Your task to perform on an android device: open app "Google Play services" (install if not already installed) Image 0: 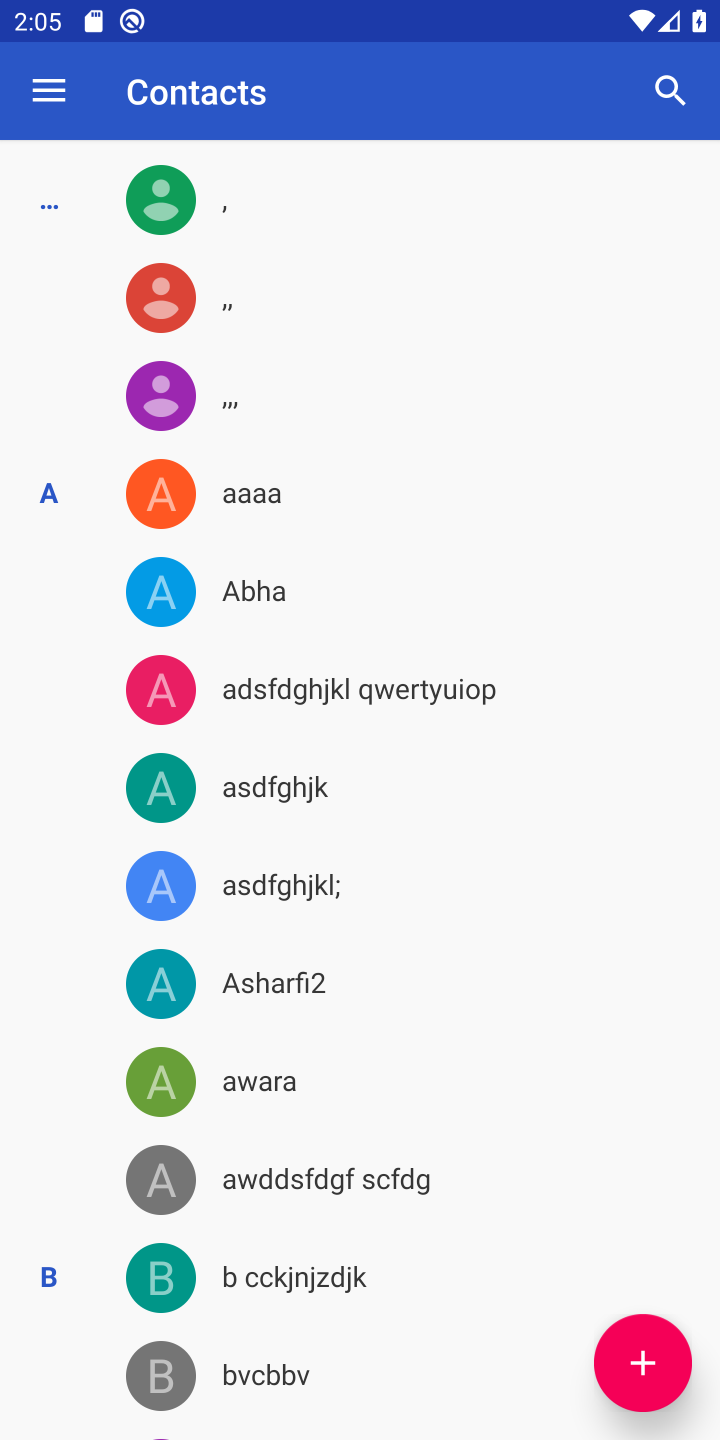
Step 0: press home button
Your task to perform on an android device: open app "Google Play services" (install if not already installed) Image 1: 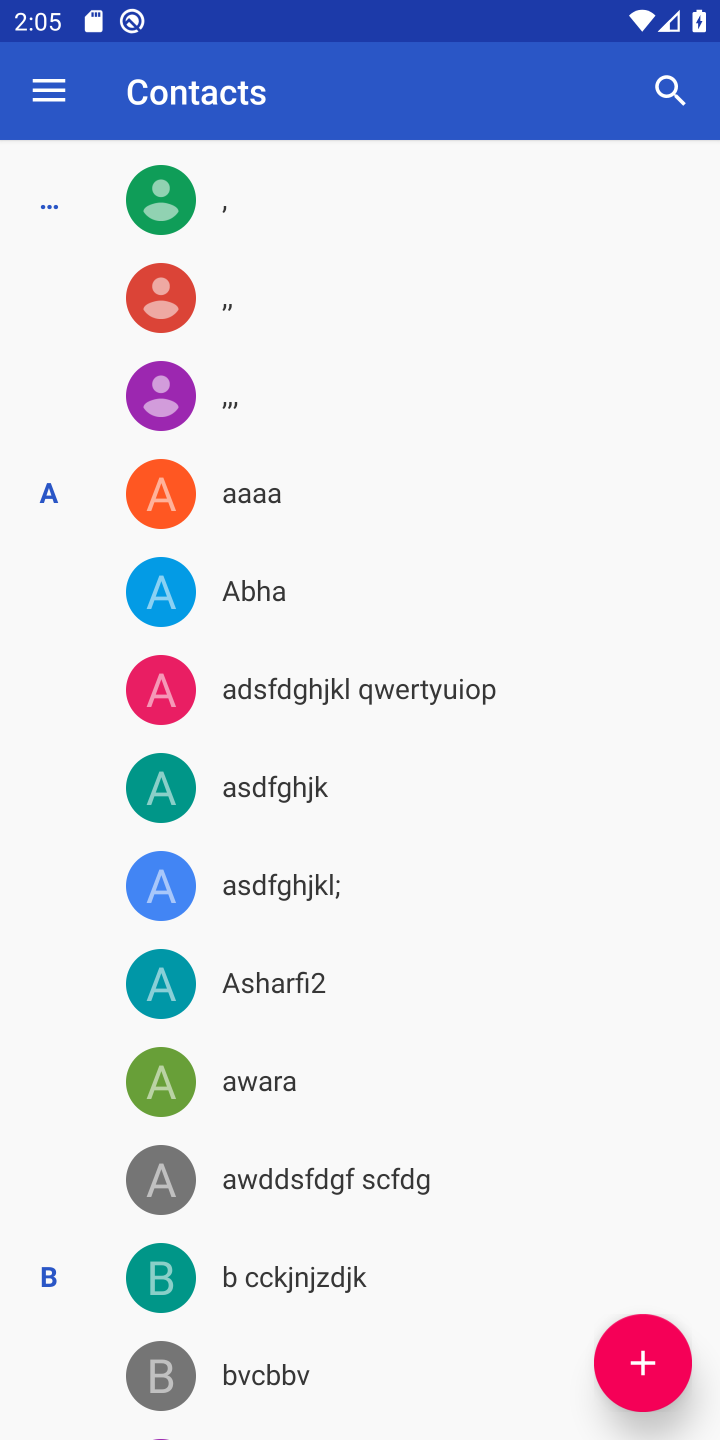
Step 1: press home button
Your task to perform on an android device: open app "Google Play services" (install if not already installed) Image 2: 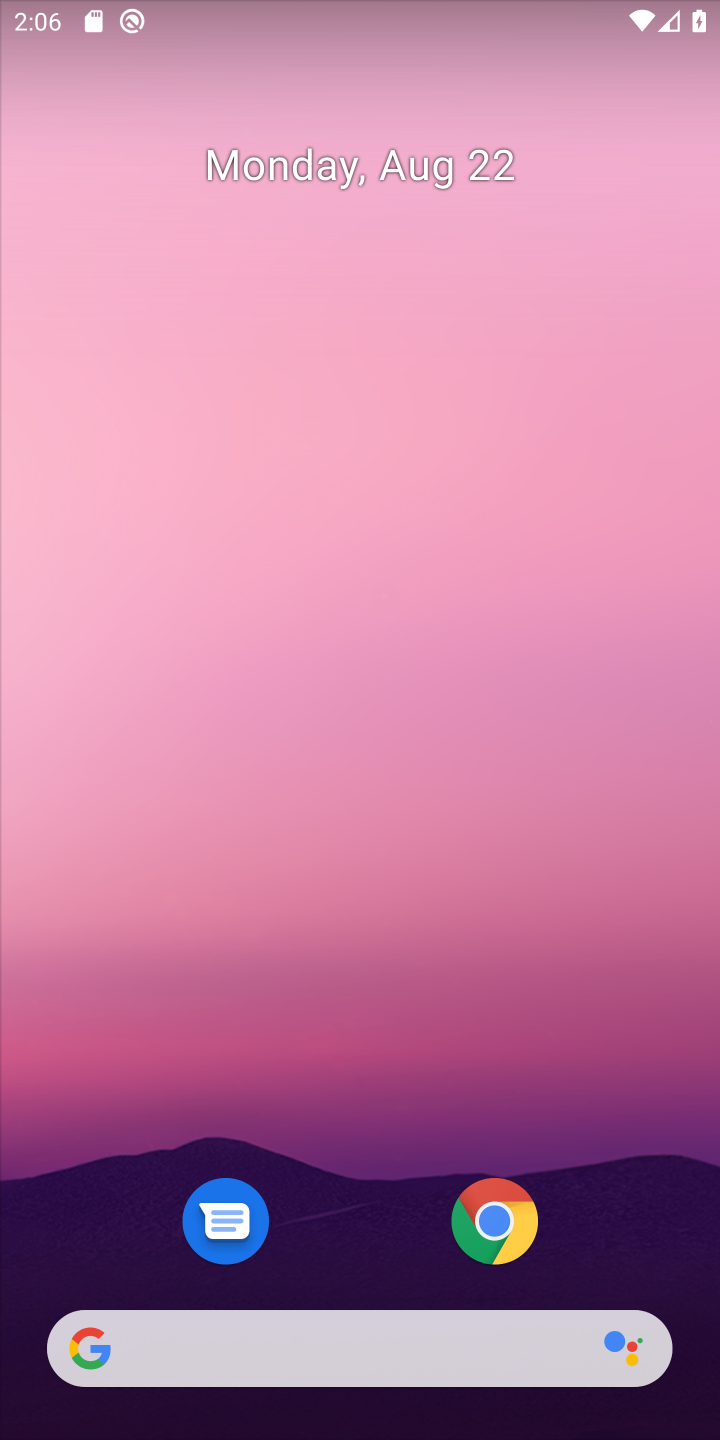
Step 2: drag from (363, 1269) to (353, 134)
Your task to perform on an android device: open app "Google Play services" (install if not already installed) Image 3: 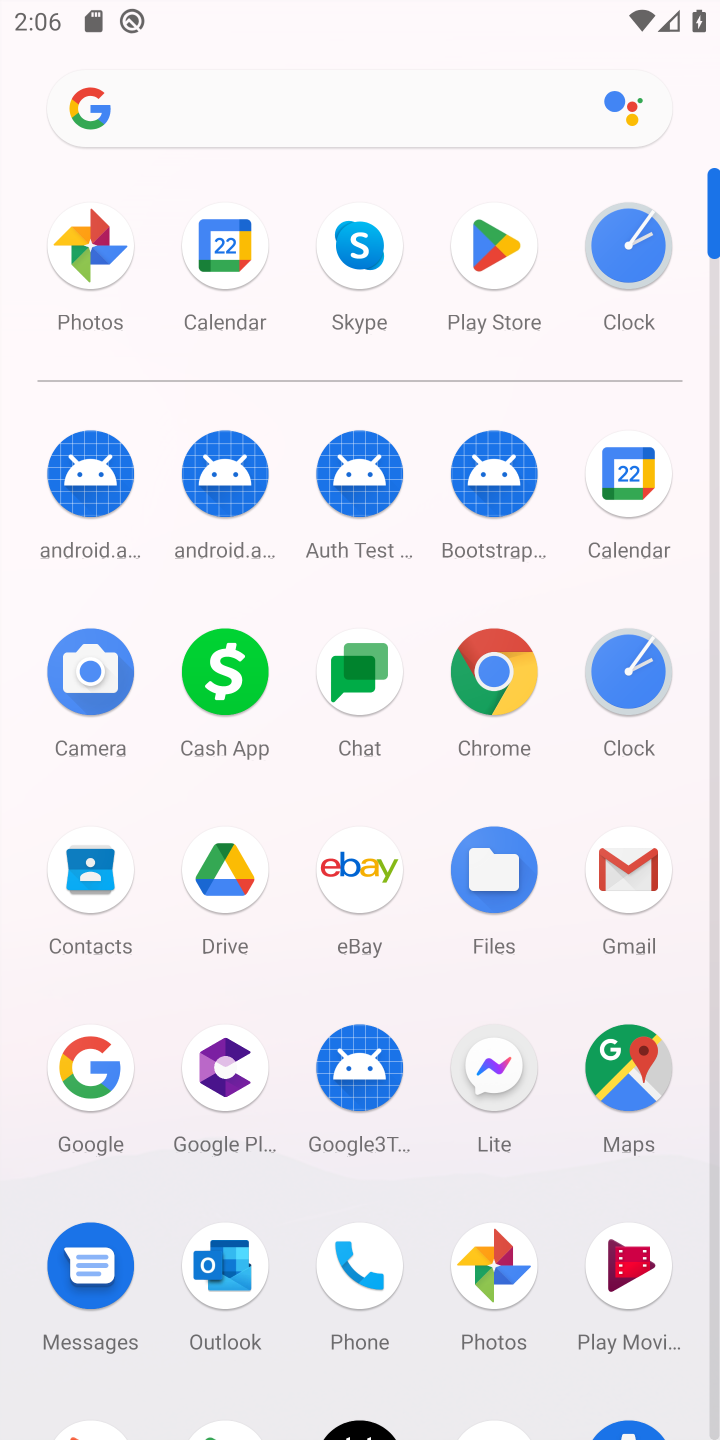
Step 3: click (493, 239)
Your task to perform on an android device: open app "Google Play services" (install if not already installed) Image 4: 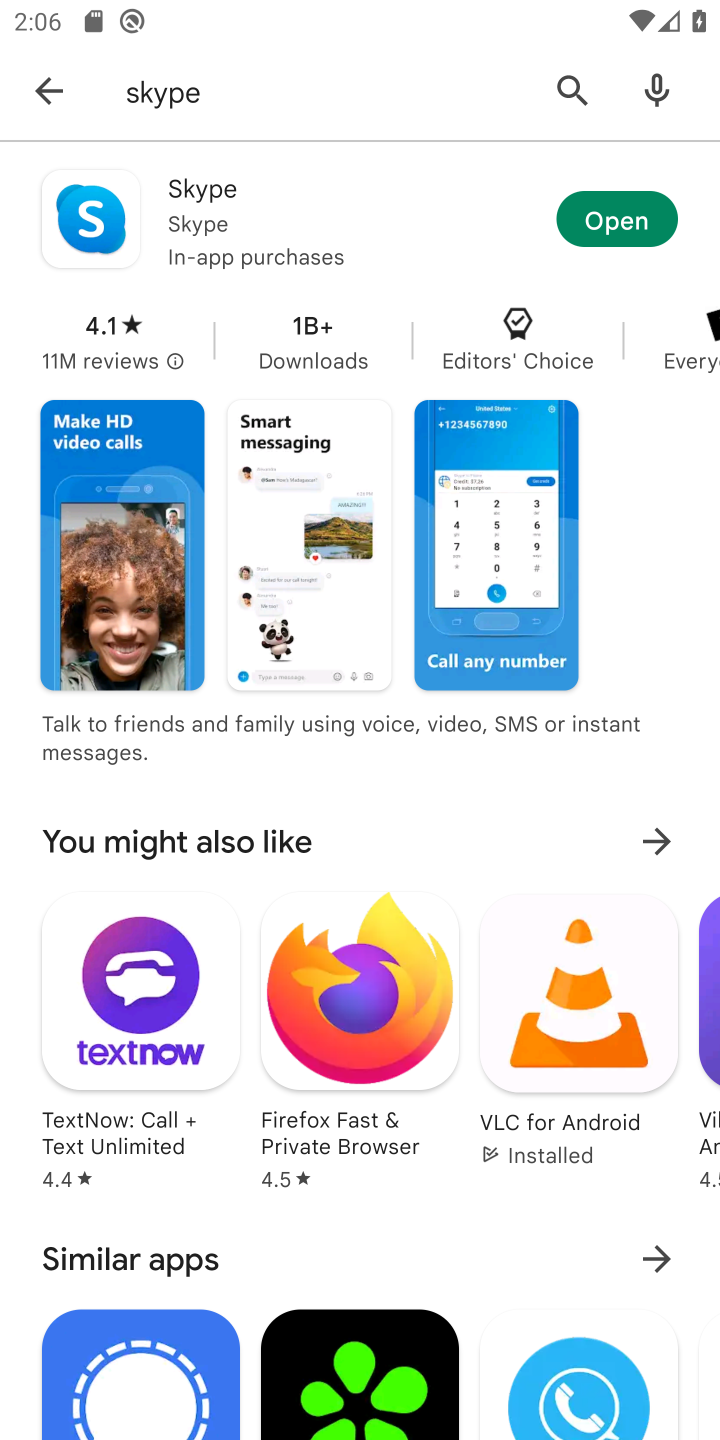
Step 4: click (564, 82)
Your task to perform on an android device: open app "Google Play services" (install if not already installed) Image 5: 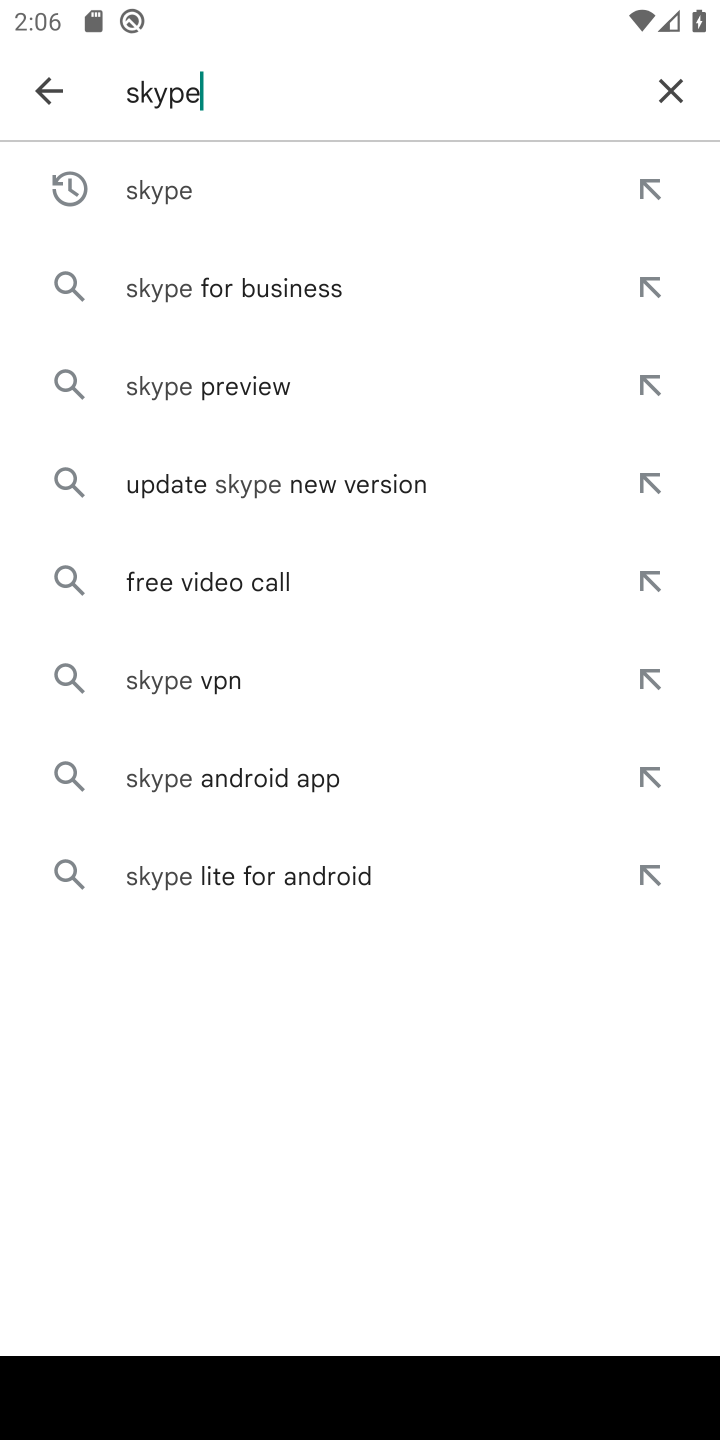
Step 5: click (663, 89)
Your task to perform on an android device: open app "Google Play services" (install if not already installed) Image 6: 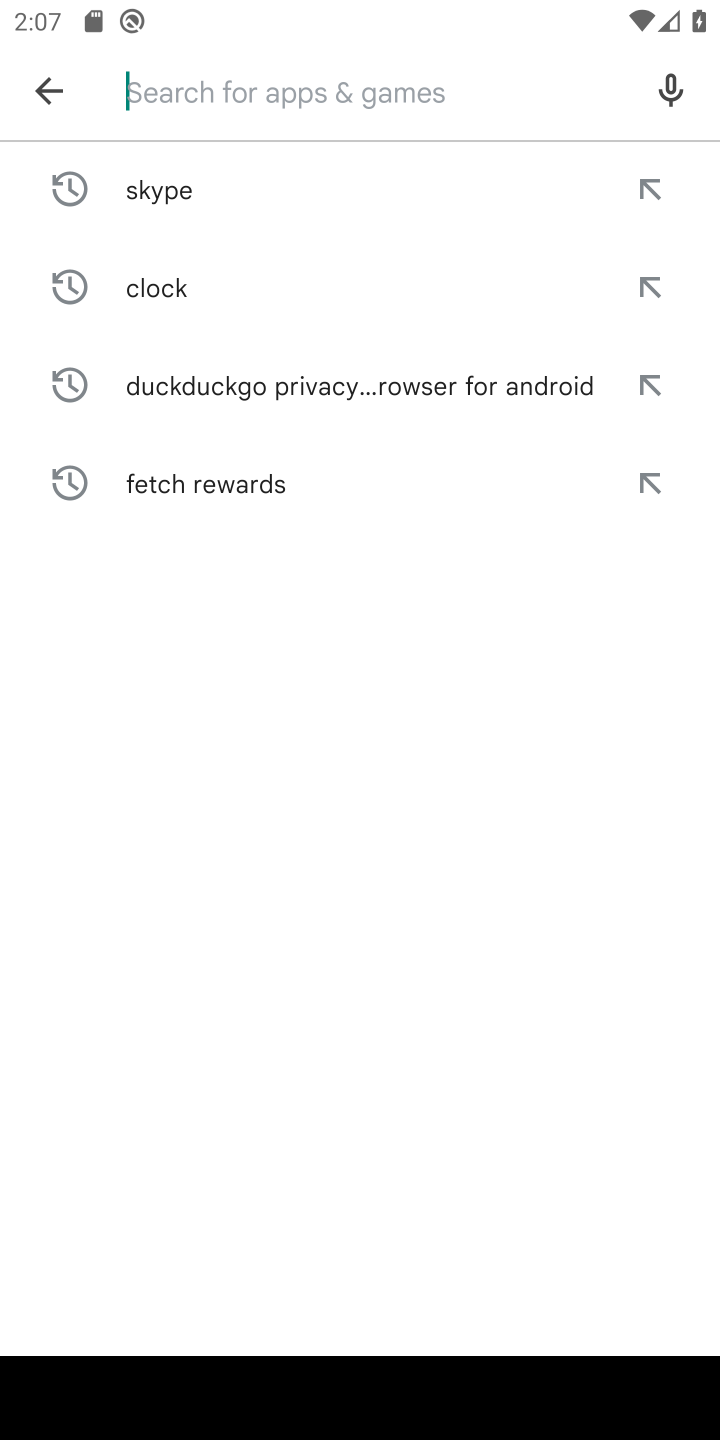
Step 6: type "Google Play services"
Your task to perform on an android device: open app "Google Play services" (install if not already installed) Image 7: 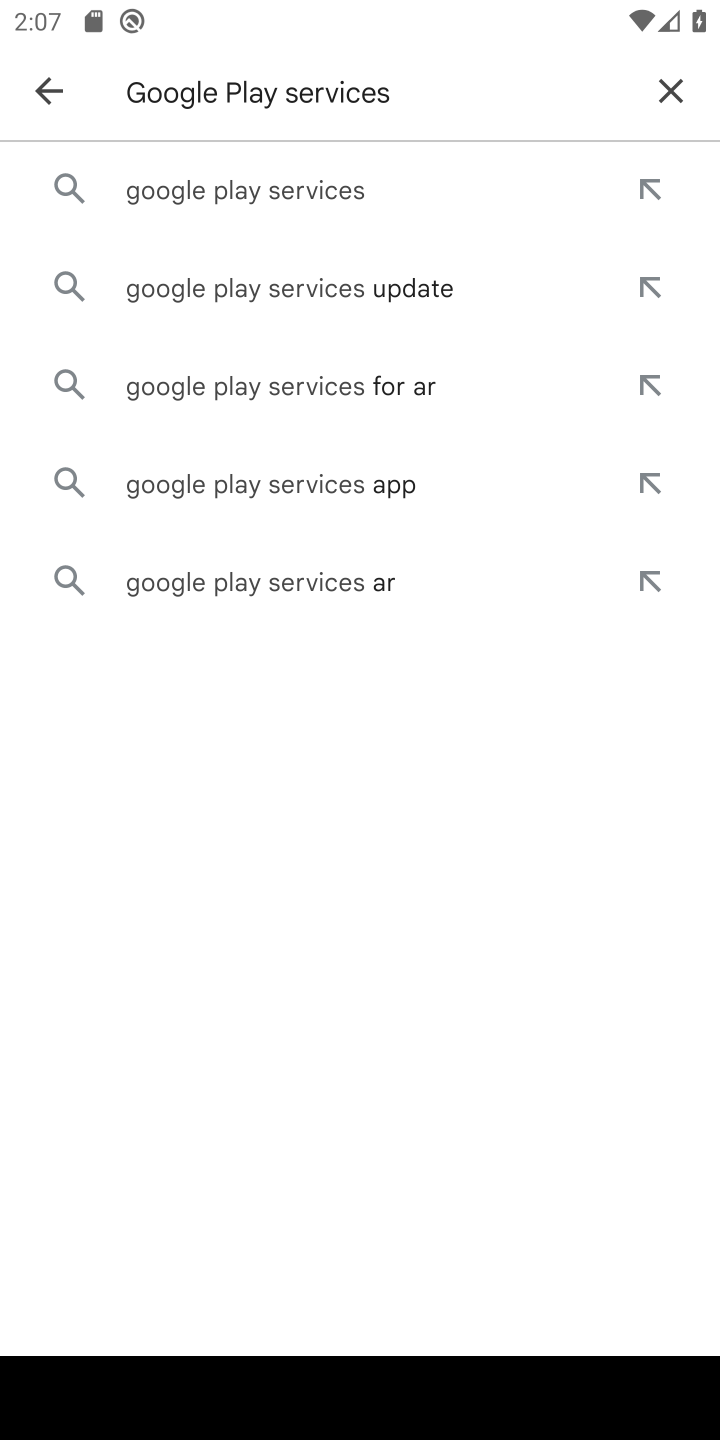
Step 7: click (240, 191)
Your task to perform on an android device: open app "Google Play services" (install if not already installed) Image 8: 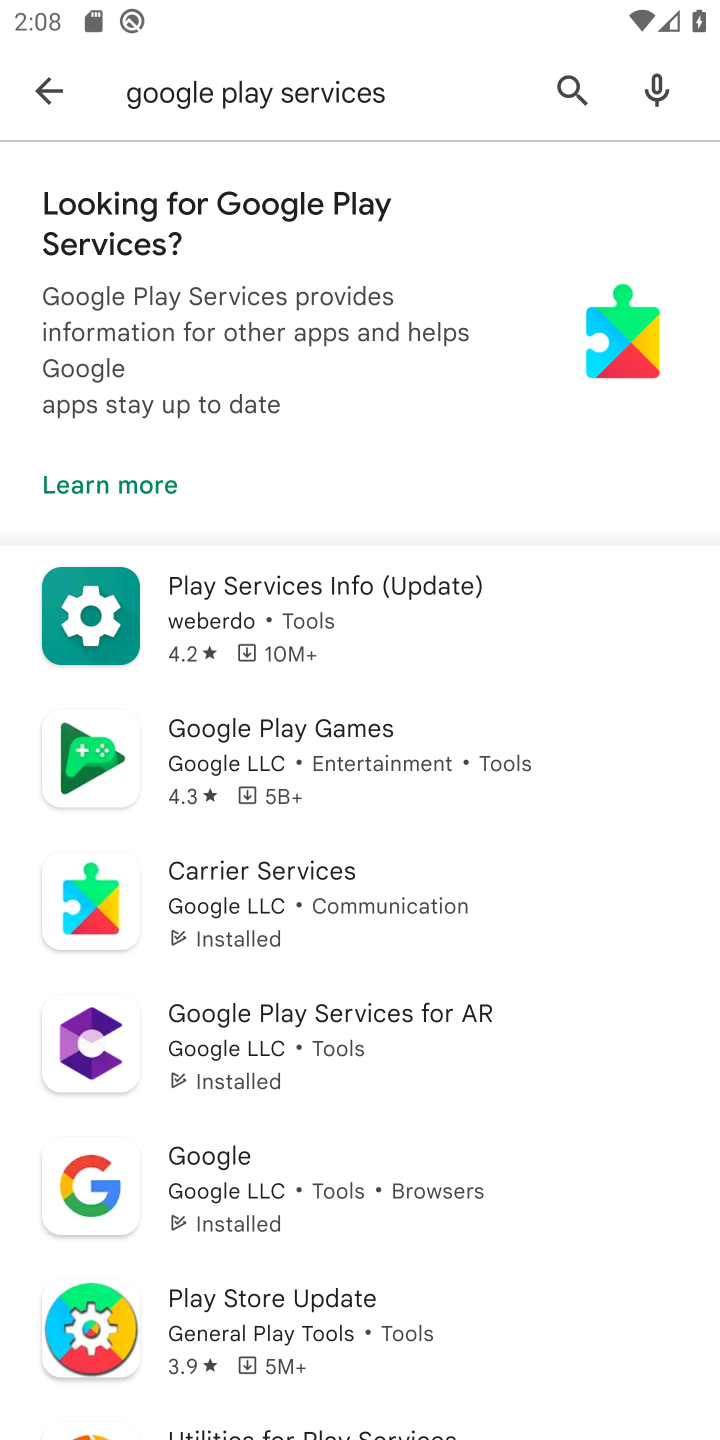
Step 8: task complete